Your task to perform on an android device: toggle notification dots Image 0: 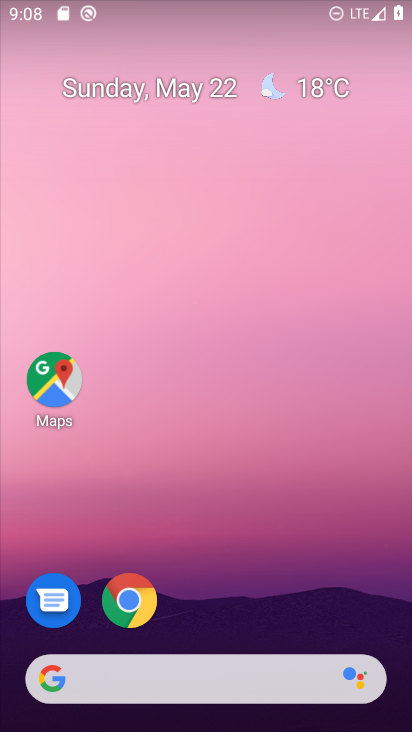
Step 0: drag from (391, 649) to (257, 12)
Your task to perform on an android device: toggle notification dots Image 1: 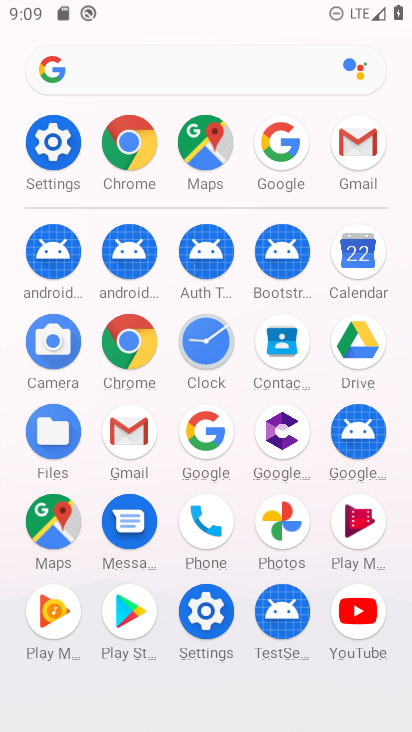
Step 1: click (207, 613)
Your task to perform on an android device: toggle notification dots Image 2: 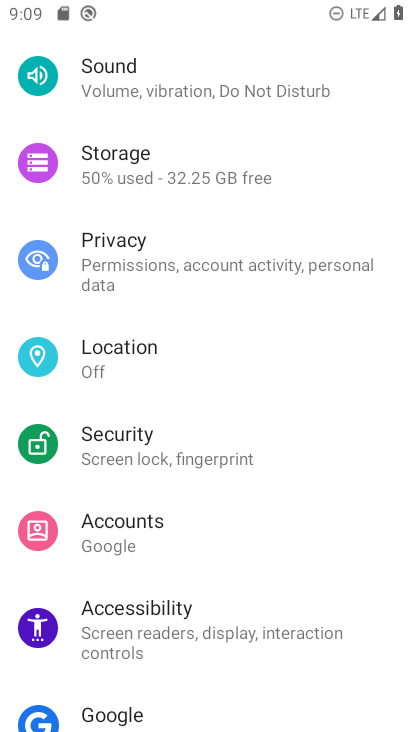
Step 2: drag from (235, 167) to (237, 609)
Your task to perform on an android device: toggle notification dots Image 3: 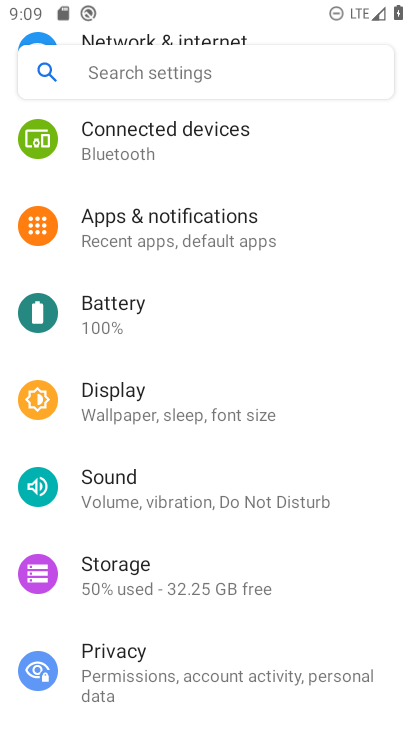
Step 3: click (257, 240)
Your task to perform on an android device: toggle notification dots Image 4: 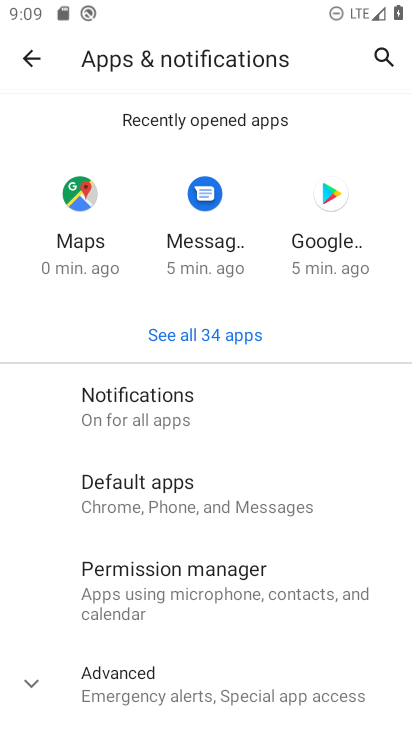
Step 4: click (181, 425)
Your task to perform on an android device: toggle notification dots Image 5: 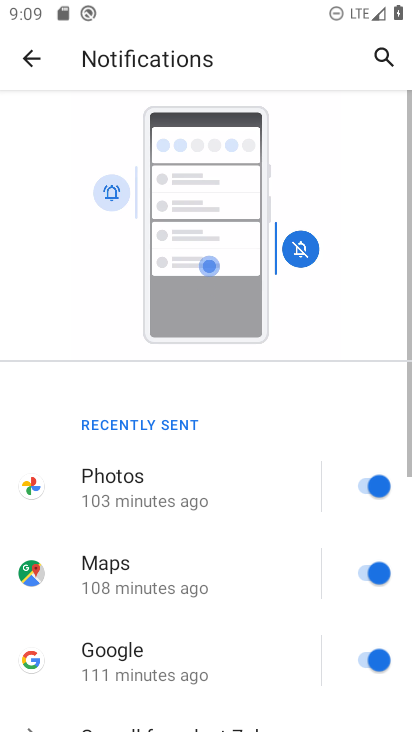
Step 5: drag from (192, 678) to (215, 53)
Your task to perform on an android device: toggle notification dots Image 6: 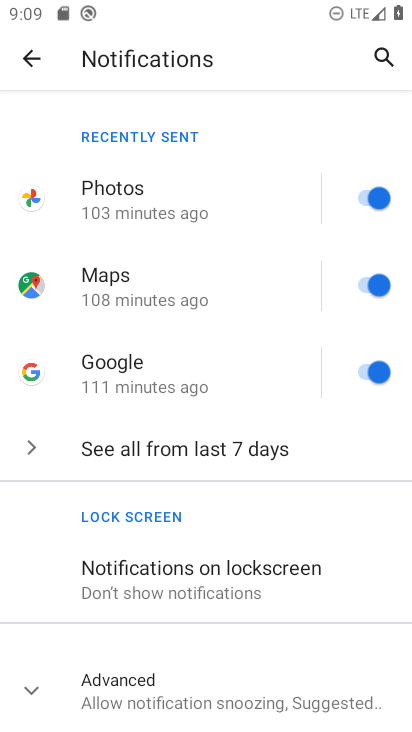
Step 6: click (135, 680)
Your task to perform on an android device: toggle notification dots Image 7: 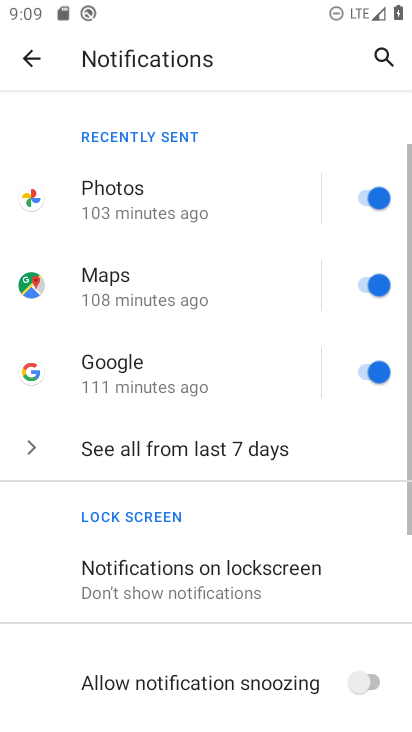
Step 7: drag from (172, 696) to (240, 124)
Your task to perform on an android device: toggle notification dots Image 8: 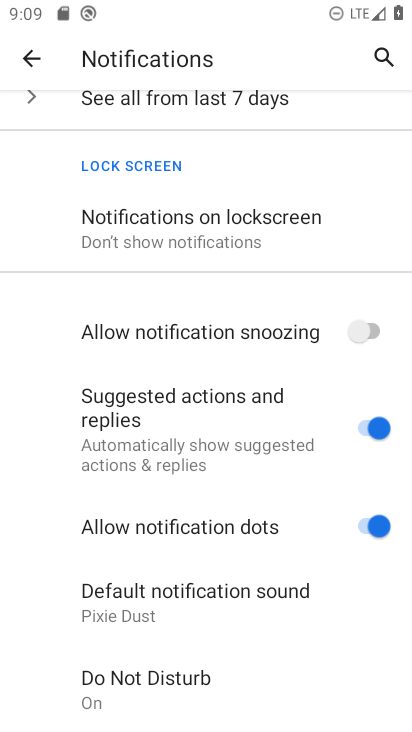
Step 8: click (306, 539)
Your task to perform on an android device: toggle notification dots Image 9: 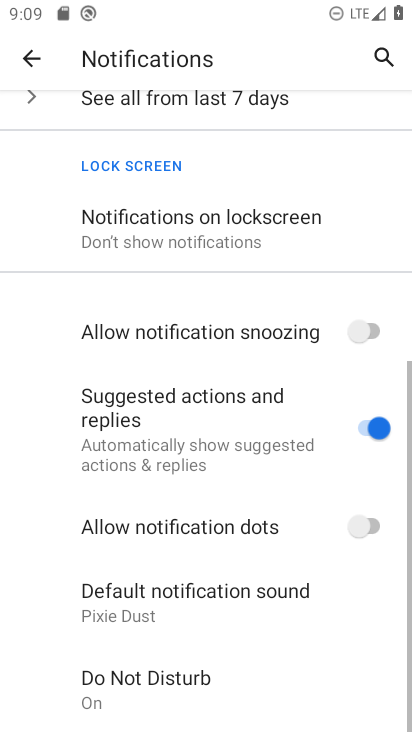
Step 9: task complete